Your task to perform on an android device: check google app version Image 0: 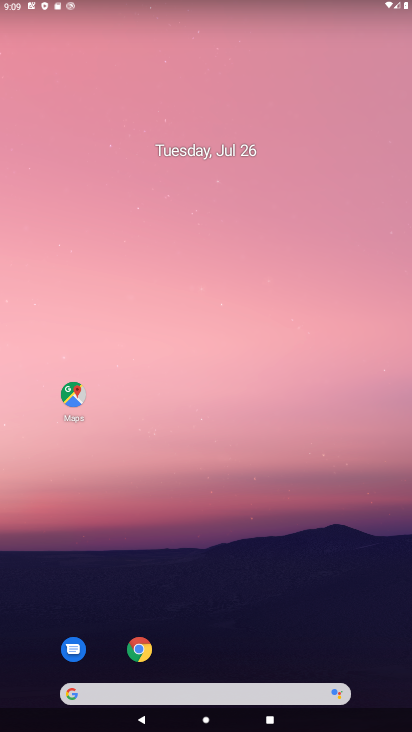
Step 0: drag from (215, 587) to (329, 90)
Your task to perform on an android device: check google app version Image 1: 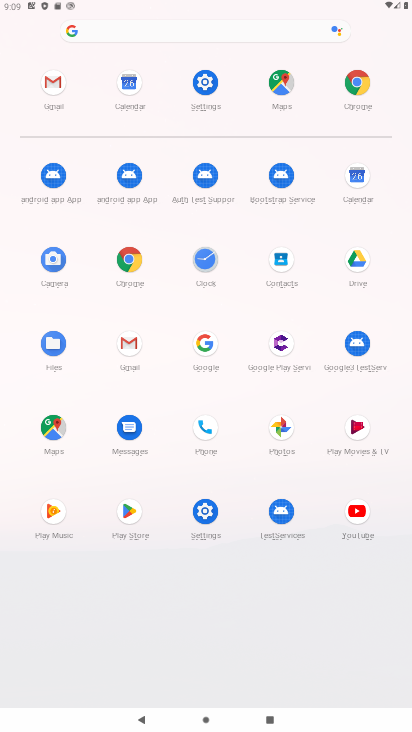
Step 1: click (203, 336)
Your task to perform on an android device: check google app version Image 2: 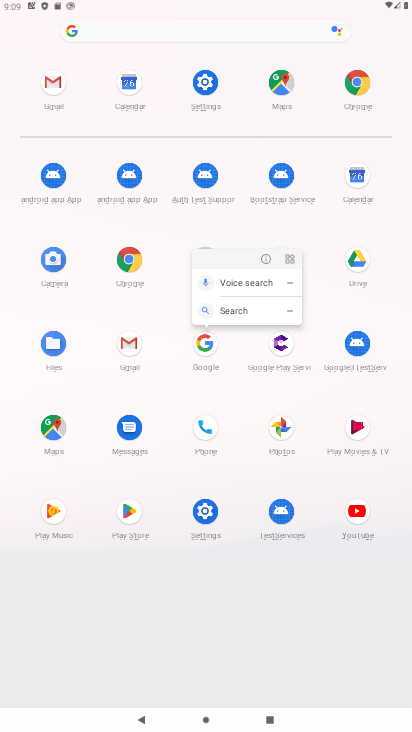
Step 2: click (263, 263)
Your task to perform on an android device: check google app version Image 3: 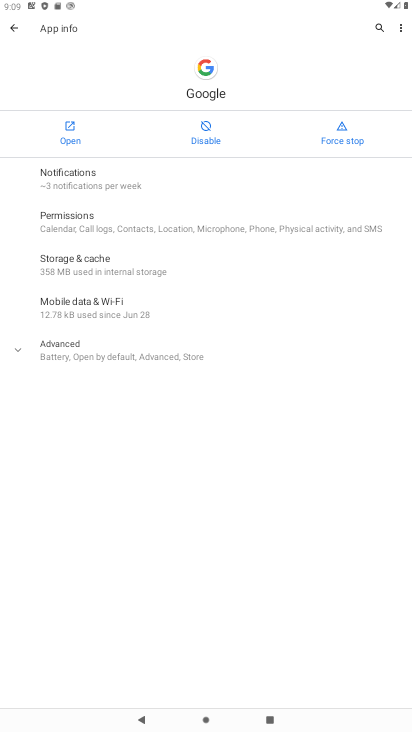
Step 3: click (68, 140)
Your task to perform on an android device: check google app version Image 4: 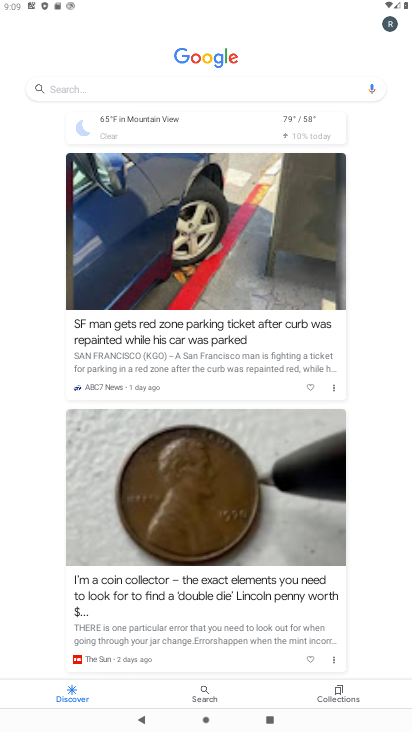
Step 4: click (391, 19)
Your task to perform on an android device: check google app version Image 5: 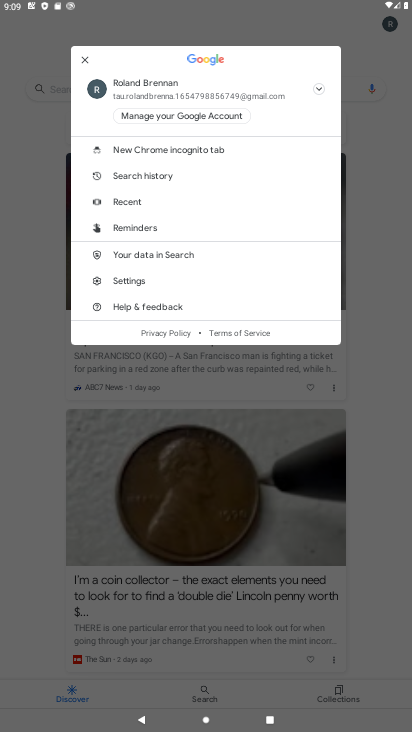
Step 5: click (132, 280)
Your task to perform on an android device: check google app version Image 6: 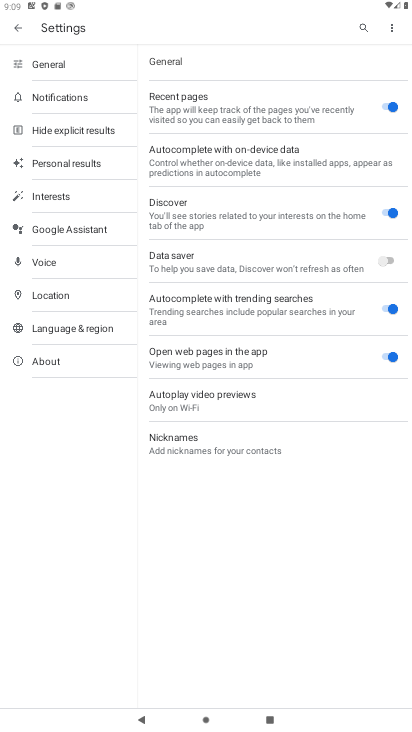
Step 6: click (67, 361)
Your task to perform on an android device: check google app version Image 7: 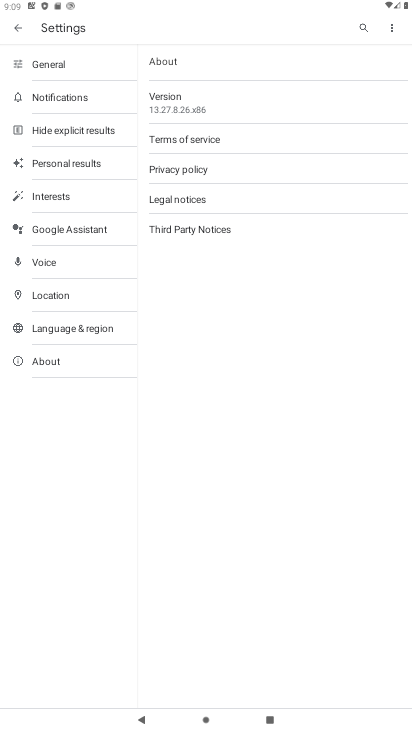
Step 7: click (169, 113)
Your task to perform on an android device: check google app version Image 8: 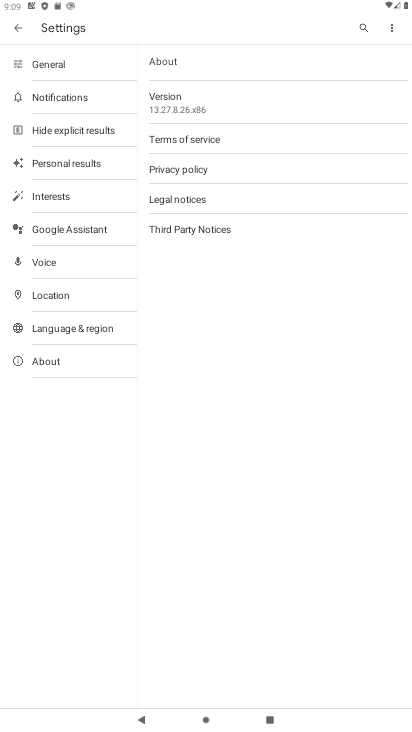
Step 8: task complete